Your task to perform on an android device: open the mobile data screen to see how much data has been used Image 0: 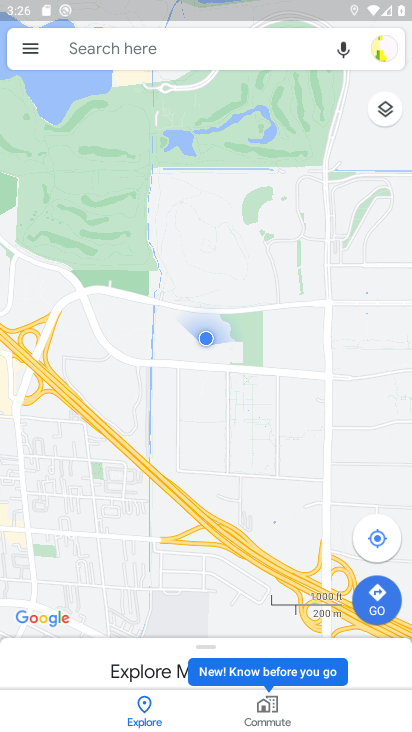
Step 0: press home button
Your task to perform on an android device: open the mobile data screen to see how much data has been used Image 1: 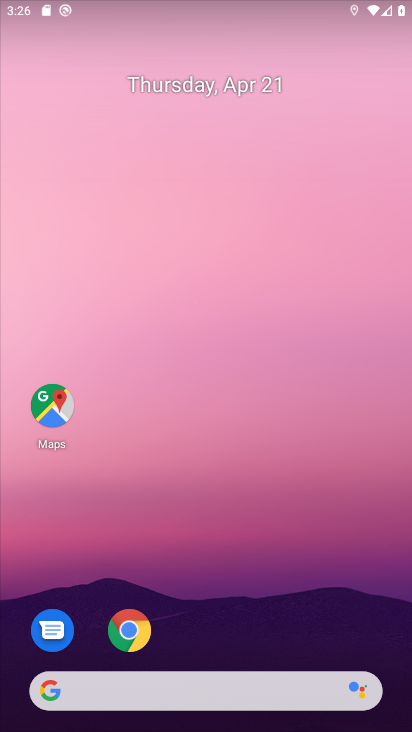
Step 1: drag from (202, 636) to (292, 0)
Your task to perform on an android device: open the mobile data screen to see how much data has been used Image 2: 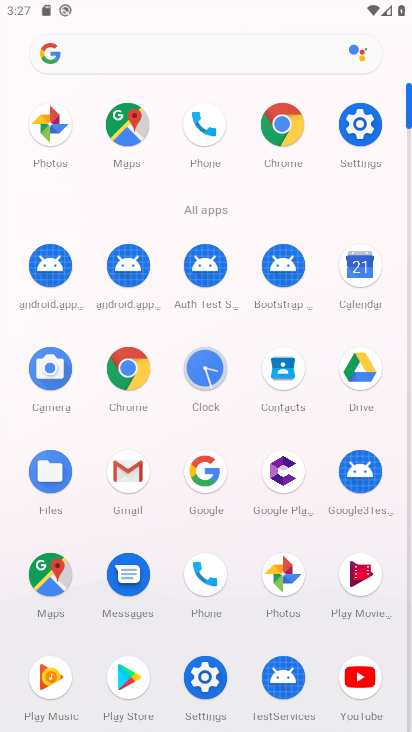
Step 2: click (358, 124)
Your task to perform on an android device: open the mobile data screen to see how much data has been used Image 3: 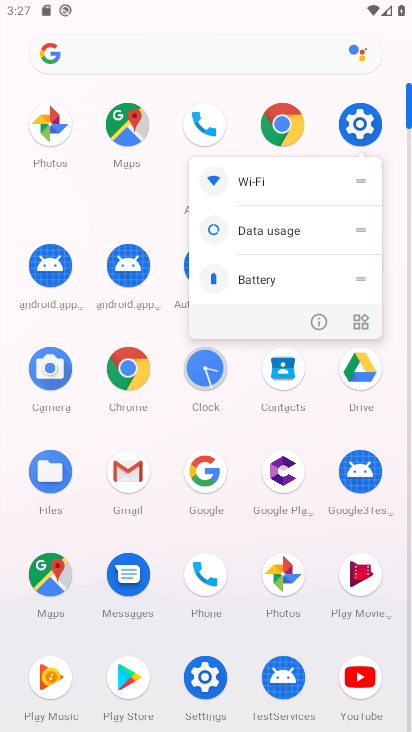
Step 3: click (319, 321)
Your task to perform on an android device: open the mobile data screen to see how much data has been used Image 4: 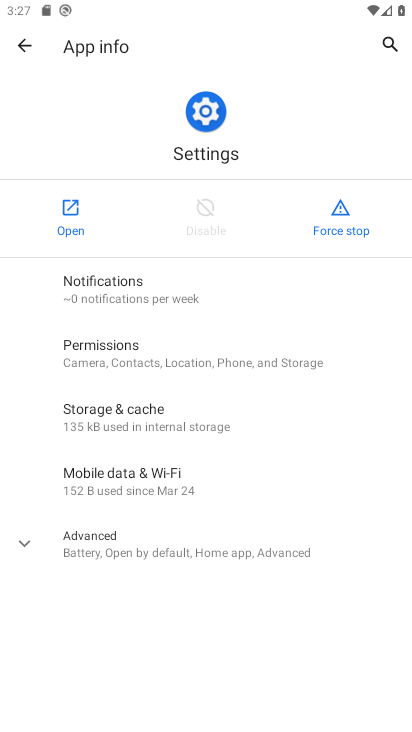
Step 4: click (74, 206)
Your task to perform on an android device: open the mobile data screen to see how much data has been used Image 5: 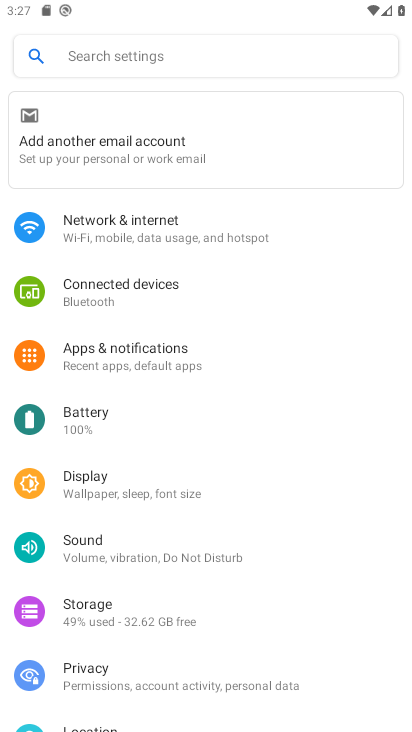
Step 5: click (163, 220)
Your task to perform on an android device: open the mobile data screen to see how much data has been used Image 6: 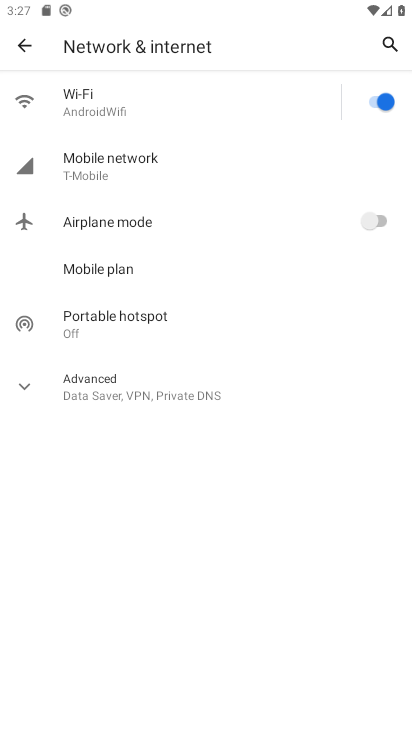
Step 6: click (128, 172)
Your task to perform on an android device: open the mobile data screen to see how much data has been used Image 7: 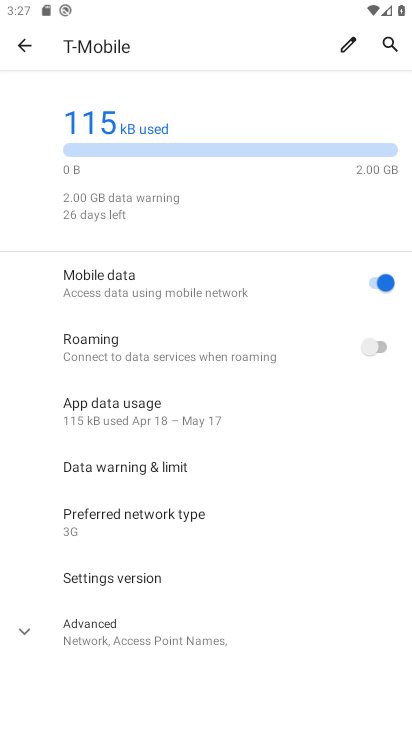
Step 7: task complete